Your task to perform on an android device: install app "Messenger Lite" Image 0: 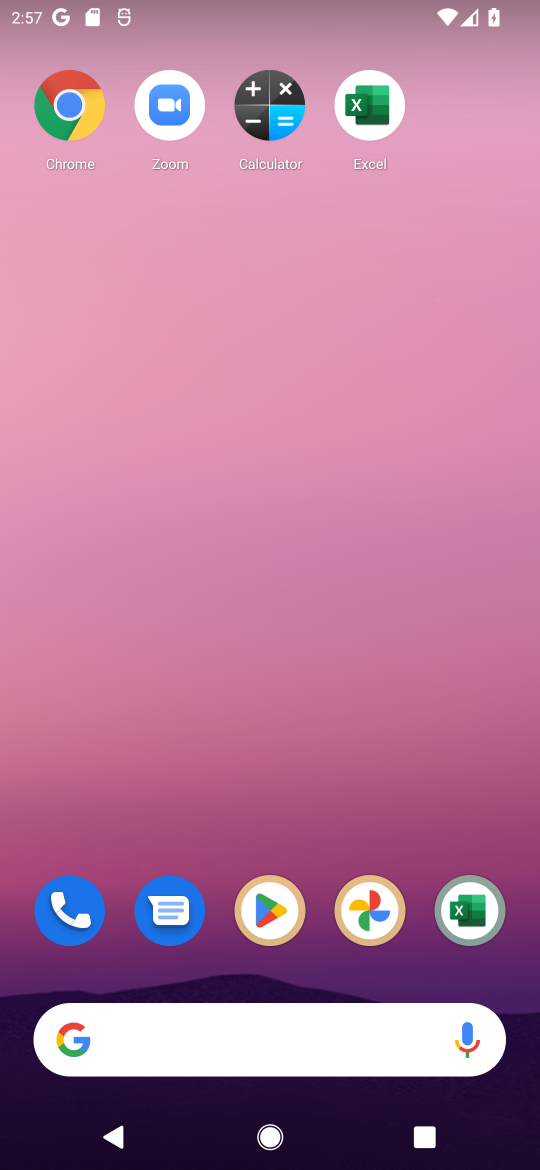
Step 0: drag from (371, 956) to (223, 0)
Your task to perform on an android device: install app "Messenger Lite" Image 1: 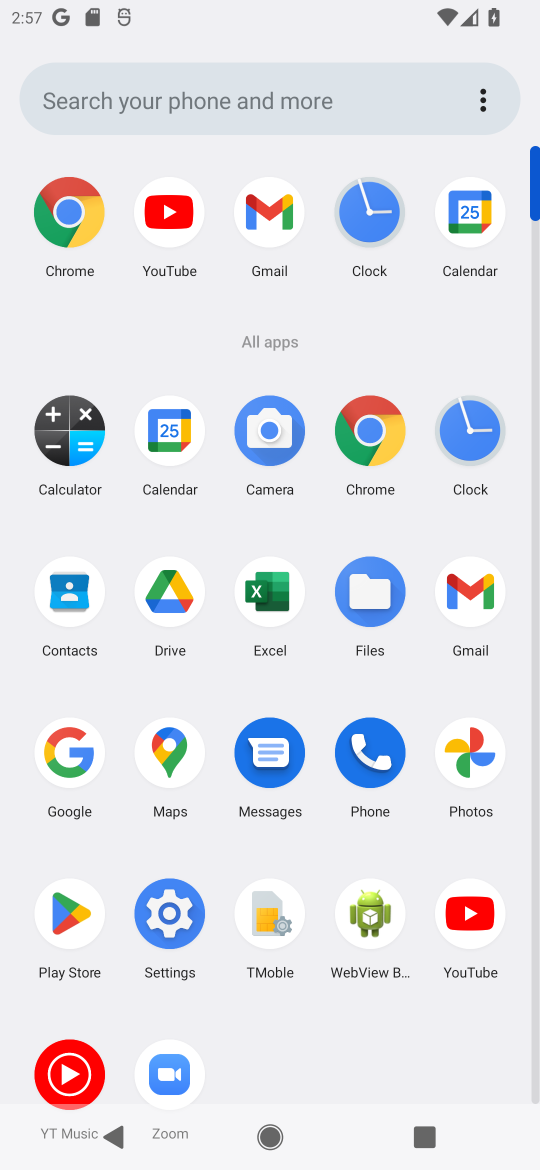
Step 1: click (47, 915)
Your task to perform on an android device: install app "Messenger Lite" Image 2: 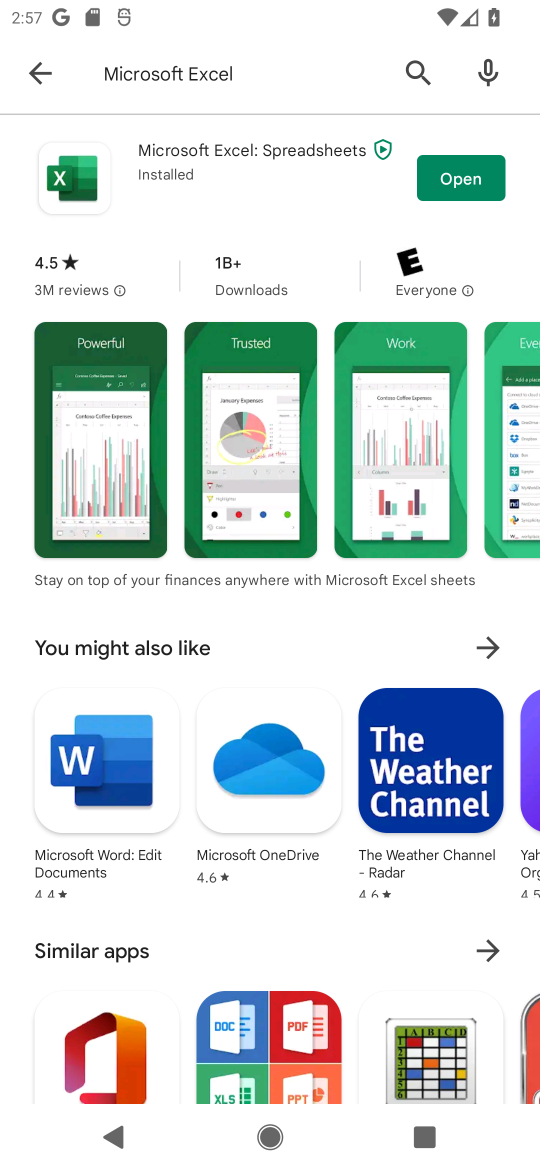
Step 2: press back button
Your task to perform on an android device: install app "Messenger Lite" Image 3: 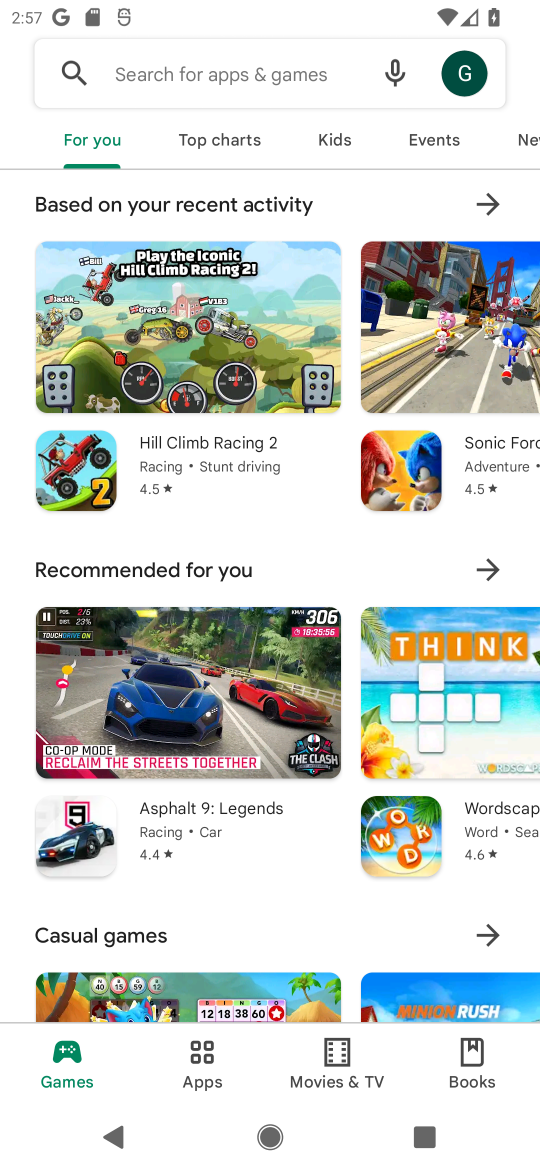
Step 3: click (192, 72)
Your task to perform on an android device: install app "Messenger Lite" Image 4: 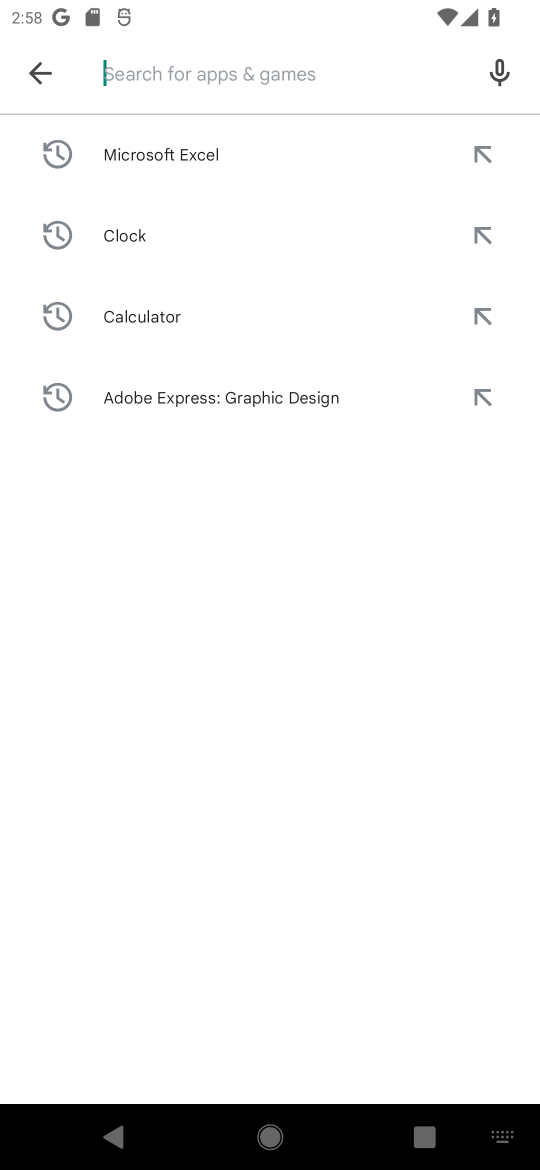
Step 4: type "Messenger Lite"
Your task to perform on an android device: install app "Messenger Lite" Image 5: 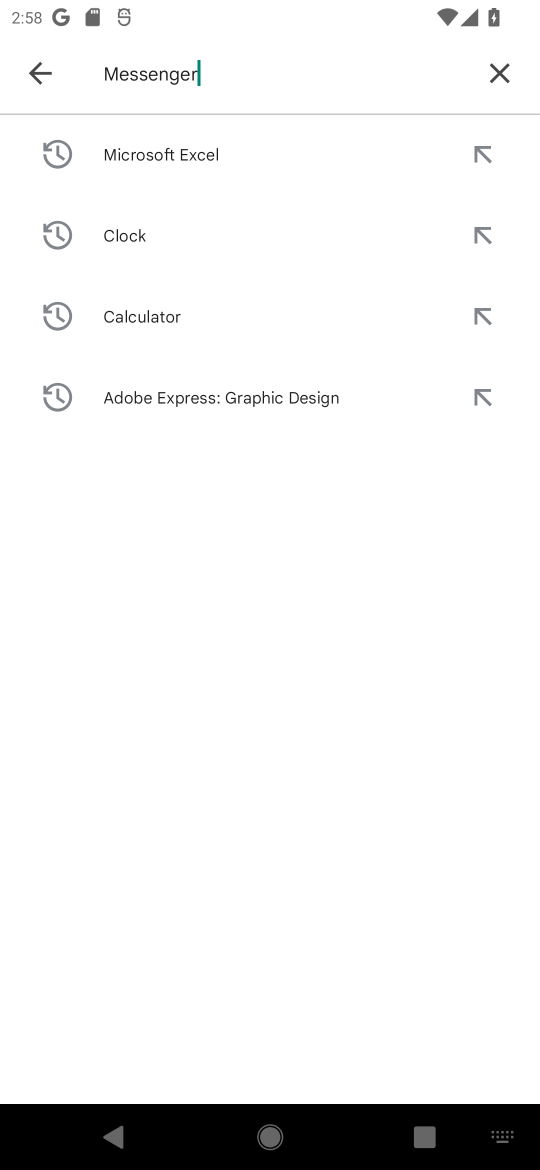
Step 5: press enter
Your task to perform on an android device: install app "Messenger Lite" Image 6: 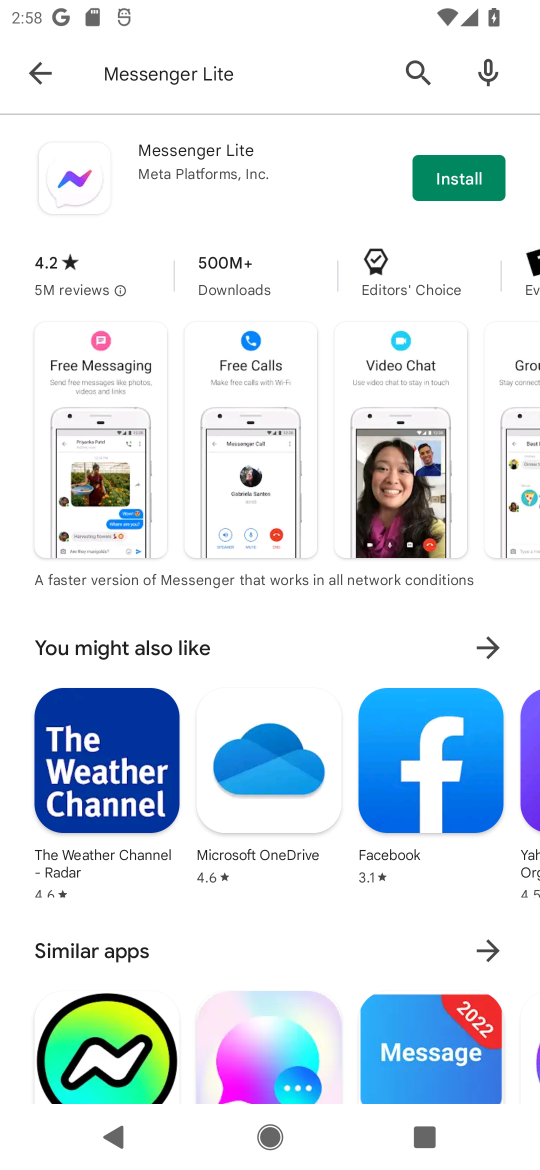
Step 6: click (486, 175)
Your task to perform on an android device: install app "Messenger Lite" Image 7: 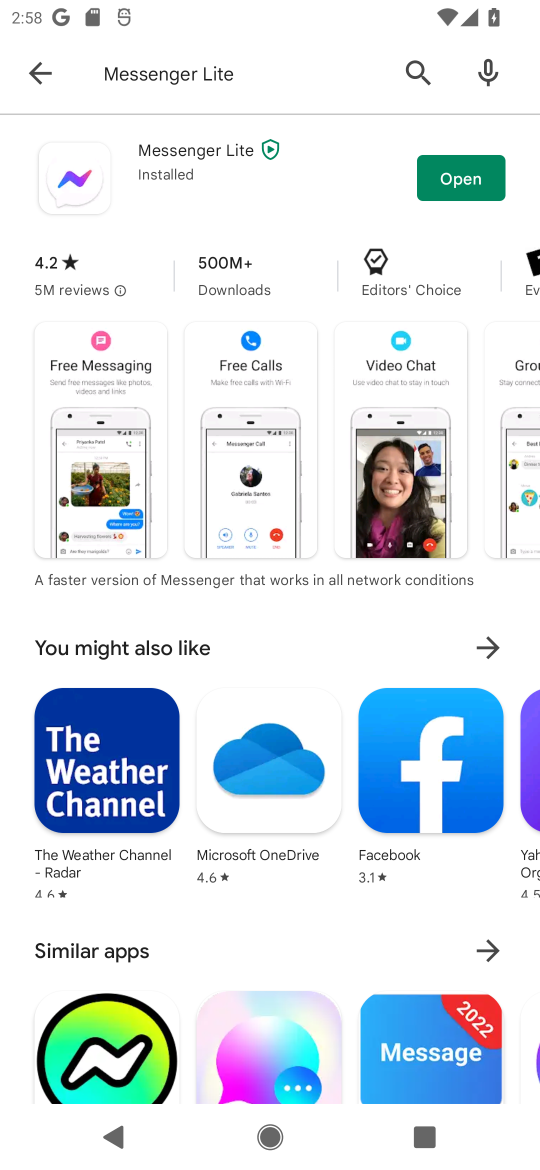
Step 7: click (469, 184)
Your task to perform on an android device: install app "Messenger Lite" Image 8: 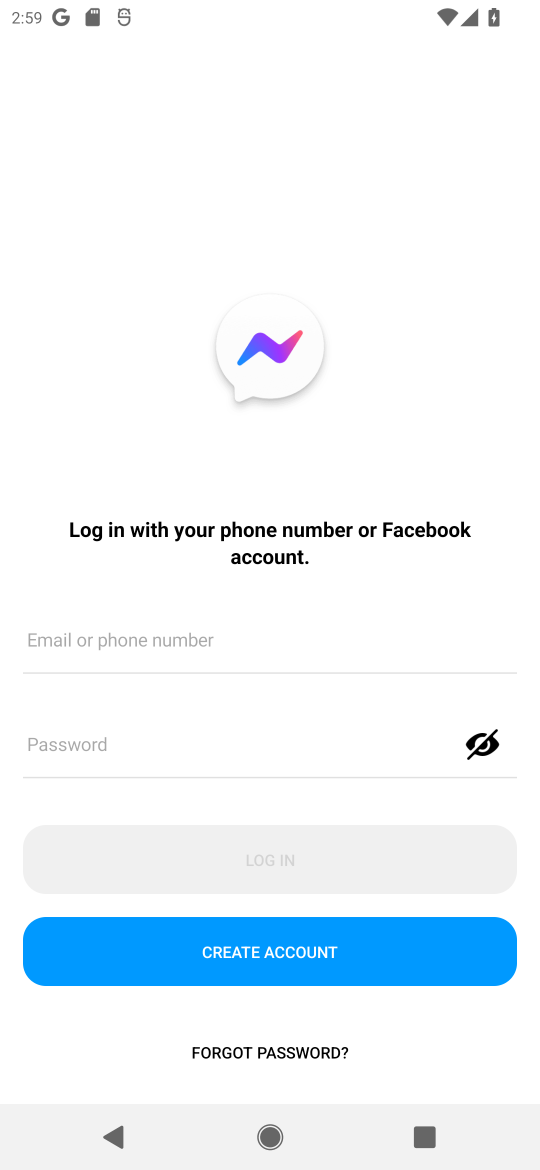
Step 8: task complete